Your task to perform on an android device: Search for Mexican restaurants on Maps Image 0: 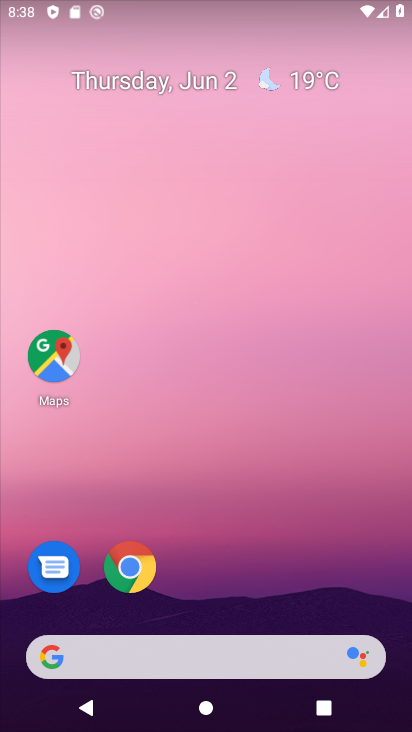
Step 0: click (59, 347)
Your task to perform on an android device: Search for Mexican restaurants on Maps Image 1: 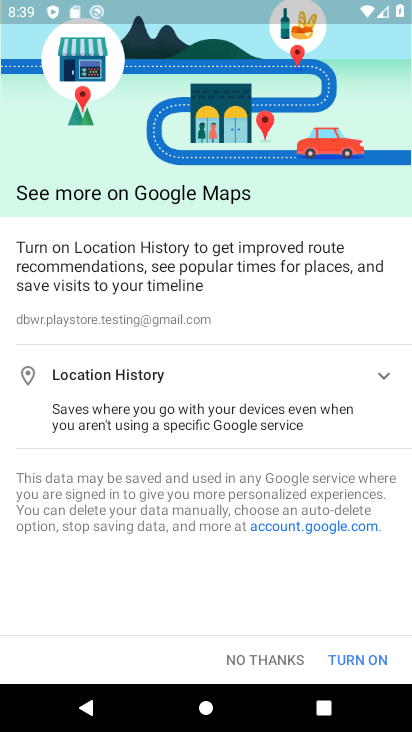
Step 1: click (271, 669)
Your task to perform on an android device: Search for Mexican restaurants on Maps Image 2: 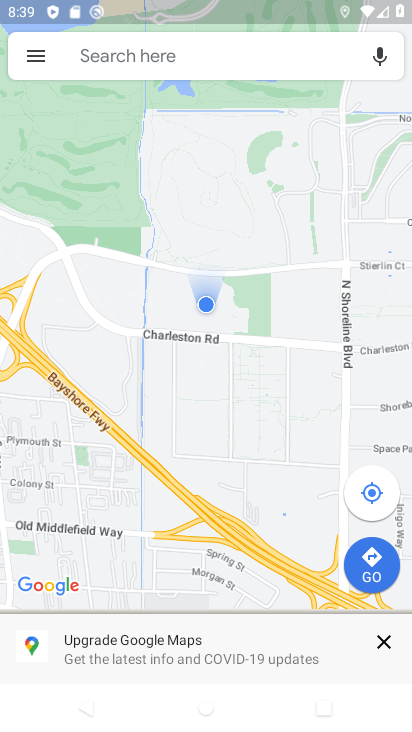
Step 2: click (157, 64)
Your task to perform on an android device: Search for Mexican restaurants on Maps Image 3: 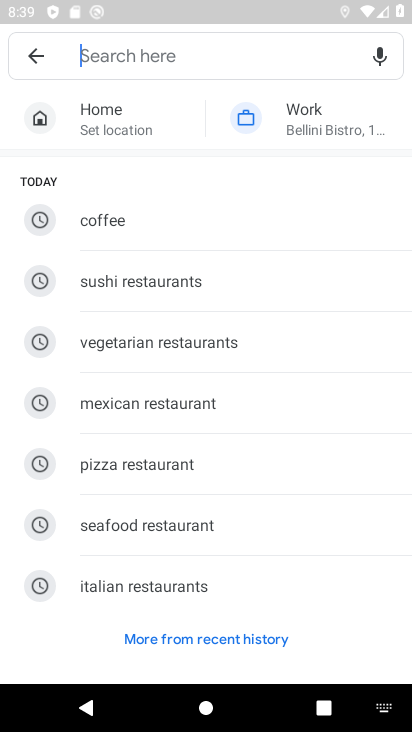
Step 3: type "Mexiican restaurants"
Your task to perform on an android device: Search for Mexican restaurants on Maps Image 4: 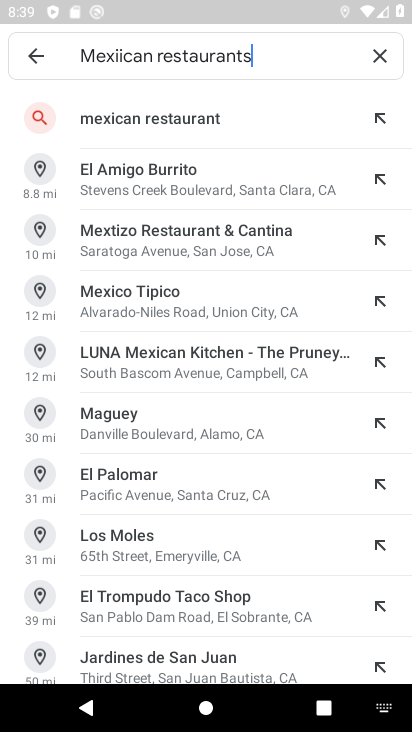
Step 4: click (203, 108)
Your task to perform on an android device: Search for Mexican restaurants on Maps Image 5: 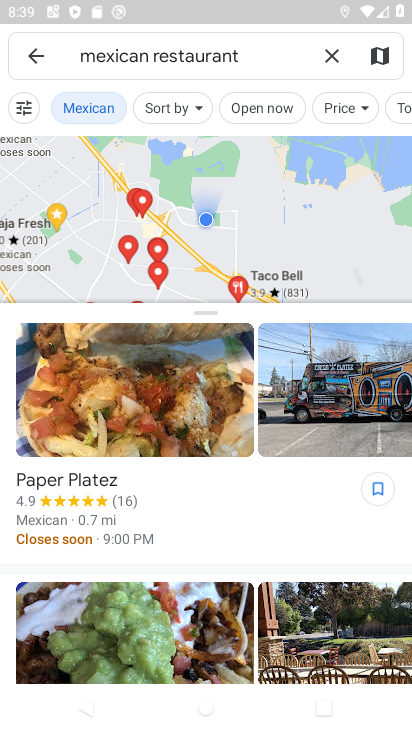
Step 5: task complete